Your task to perform on an android device: Open Chrome and go to the settings page Image 0: 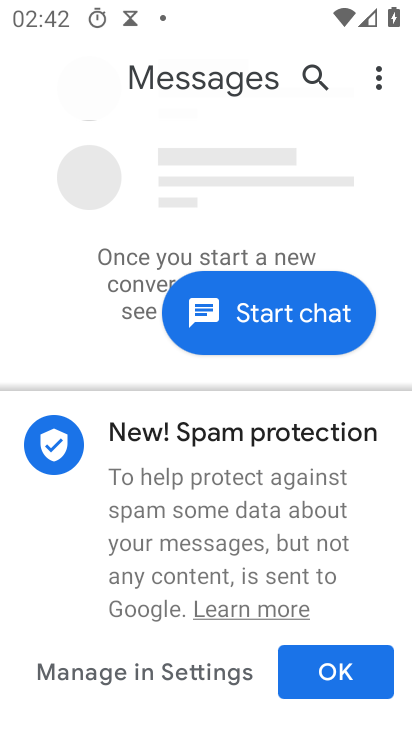
Step 0: press home button
Your task to perform on an android device: Open Chrome and go to the settings page Image 1: 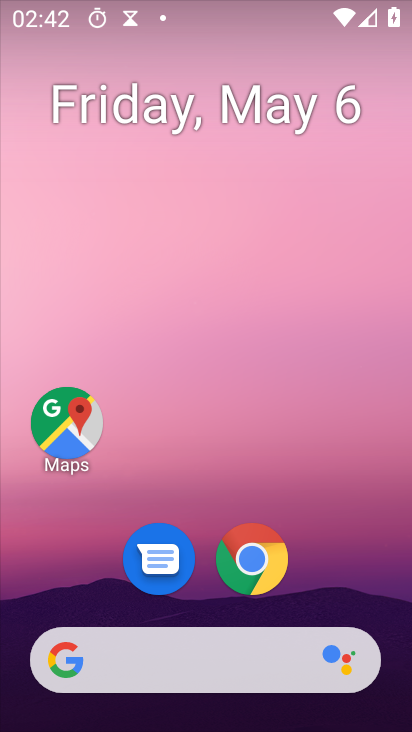
Step 1: drag from (163, 670) to (238, 18)
Your task to perform on an android device: Open Chrome and go to the settings page Image 2: 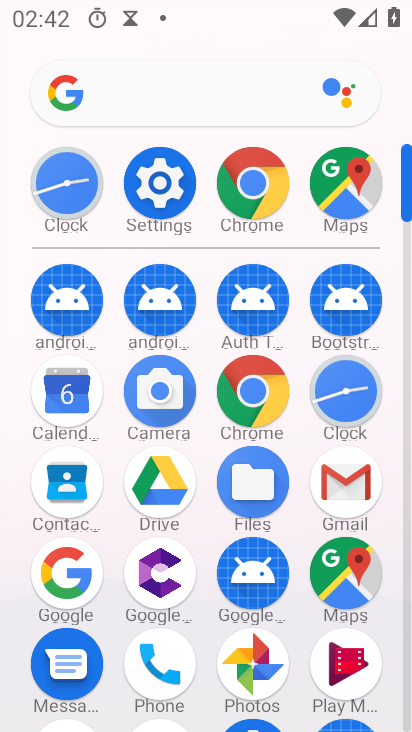
Step 2: click (248, 393)
Your task to perform on an android device: Open Chrome and go to the settings page Image 3: 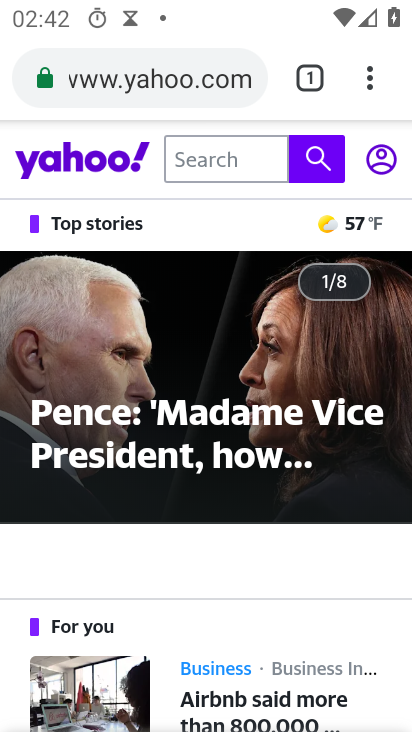
Step 3: task complete